Your task to perform on an android device: Clear all items from cart on amazon. Search for "razer deathadder" on amazon, select the first entry, add it to the cart, then select checkout. Image 0: 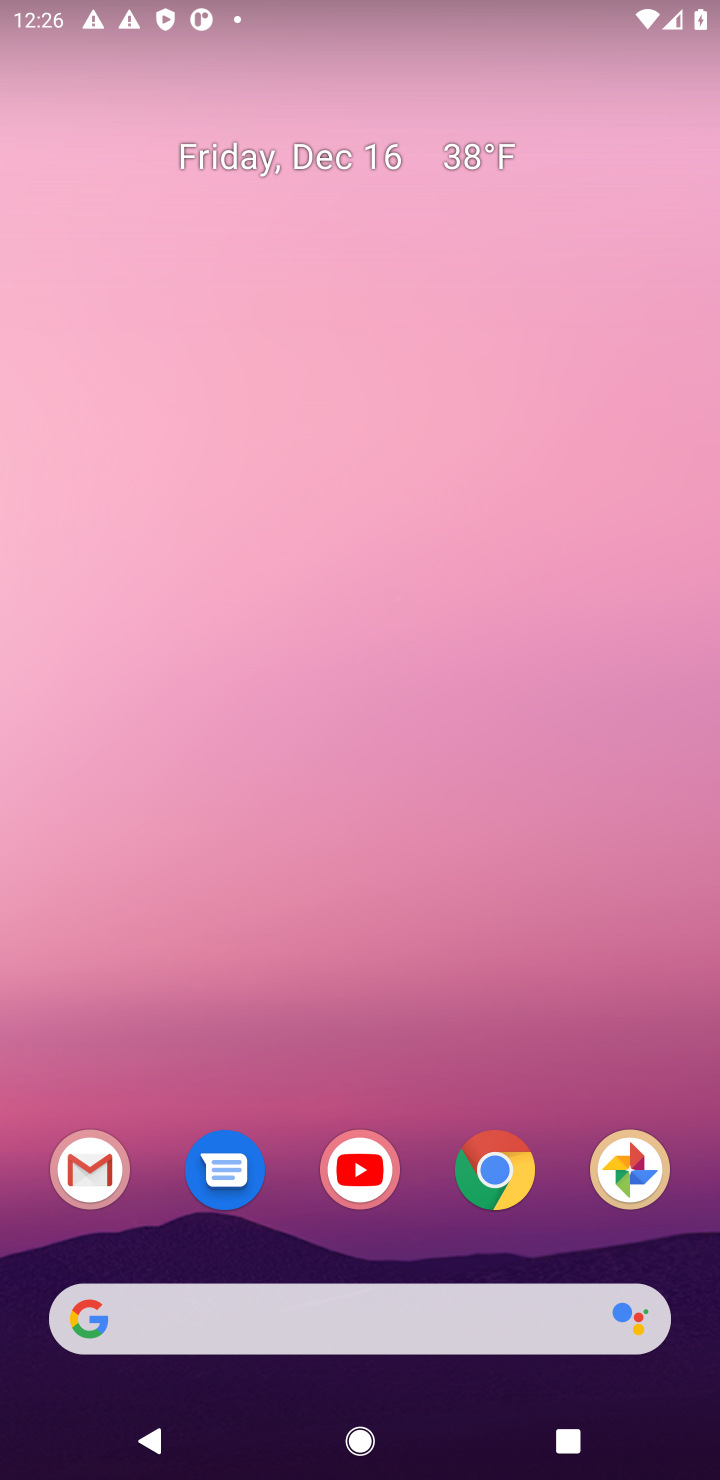
Step 0: click (485, 1184)
Your task to perform on an android device: Clear all items from cart on amazon. Search for "razer deathadder" on amazon, select the first entry, add it to the cart, then select checkout. Image 1: 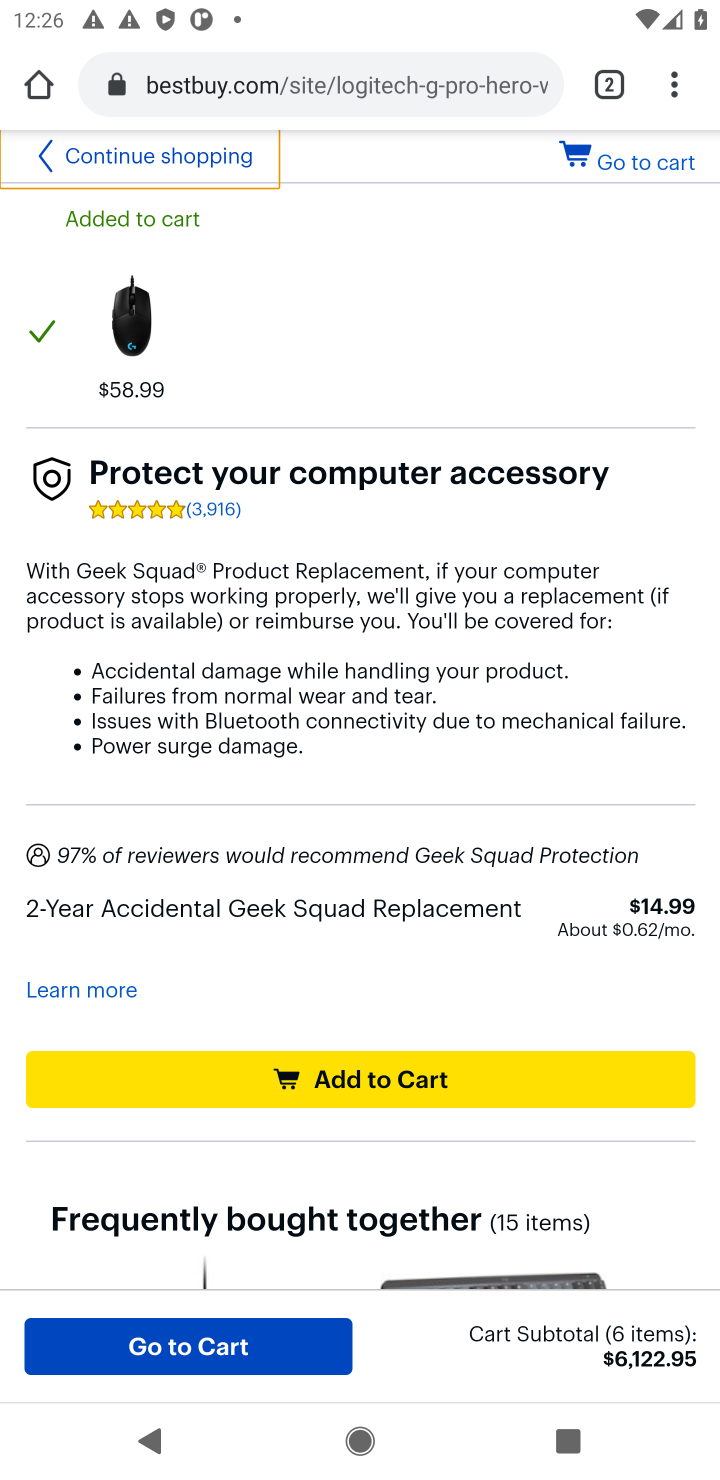
Step 1: click (289, 82)
Your task to perform on an android device: Clear all items from cart on amazon. Search for "razer deathadder" on amazon, select the first entry, add it to the cart, then select checkout. Image 2: 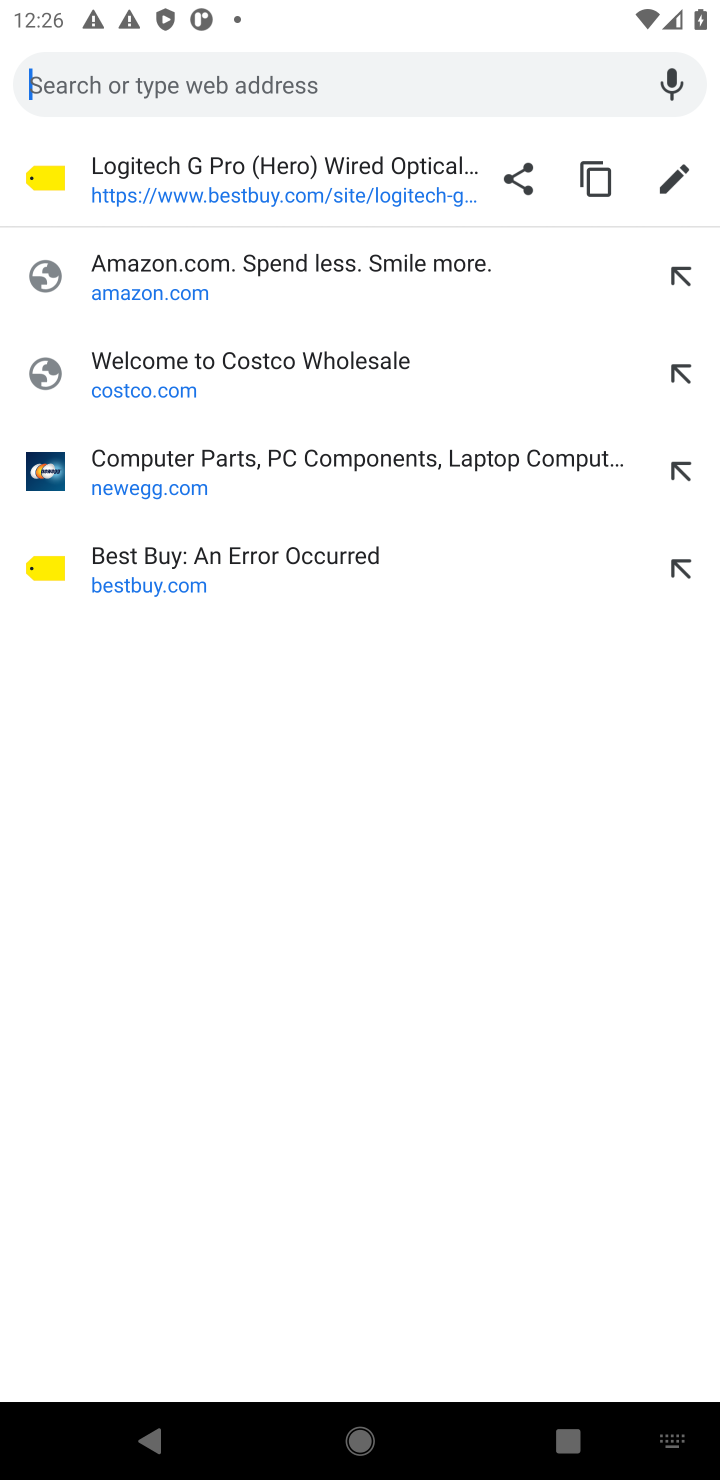
Step 2: click (137, 286)
Your task to perform on an android device: Clear all items from cart on amazon. Search for "razer deathadder" on amazon, select the first entry, add it to the cart, then select checkout. Image 3: 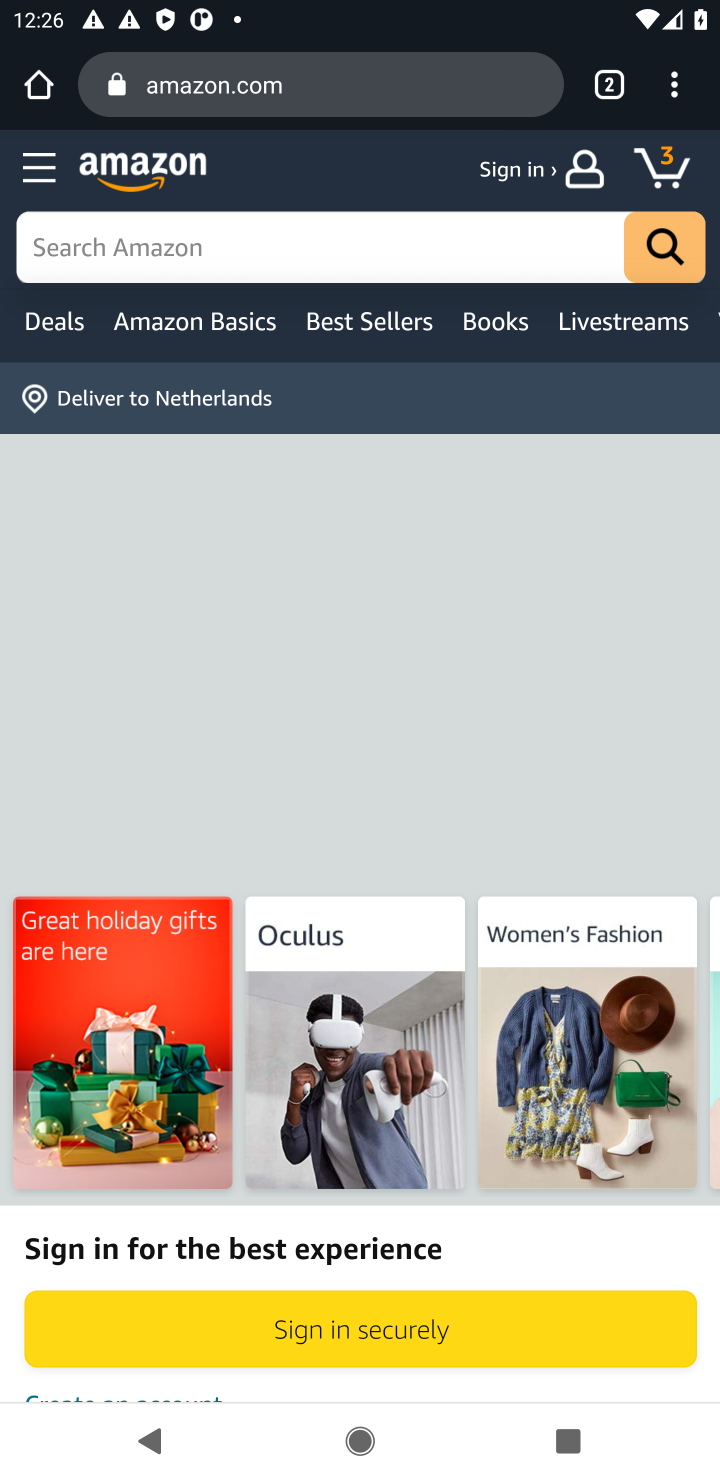
Step 3: click (666, 174)
Your task to perform on an android device: Clear all items from cart on amazon. Search for "razer deathadder" on amazon, select the first entry, add it to the cart, then select checkout. Image 4: 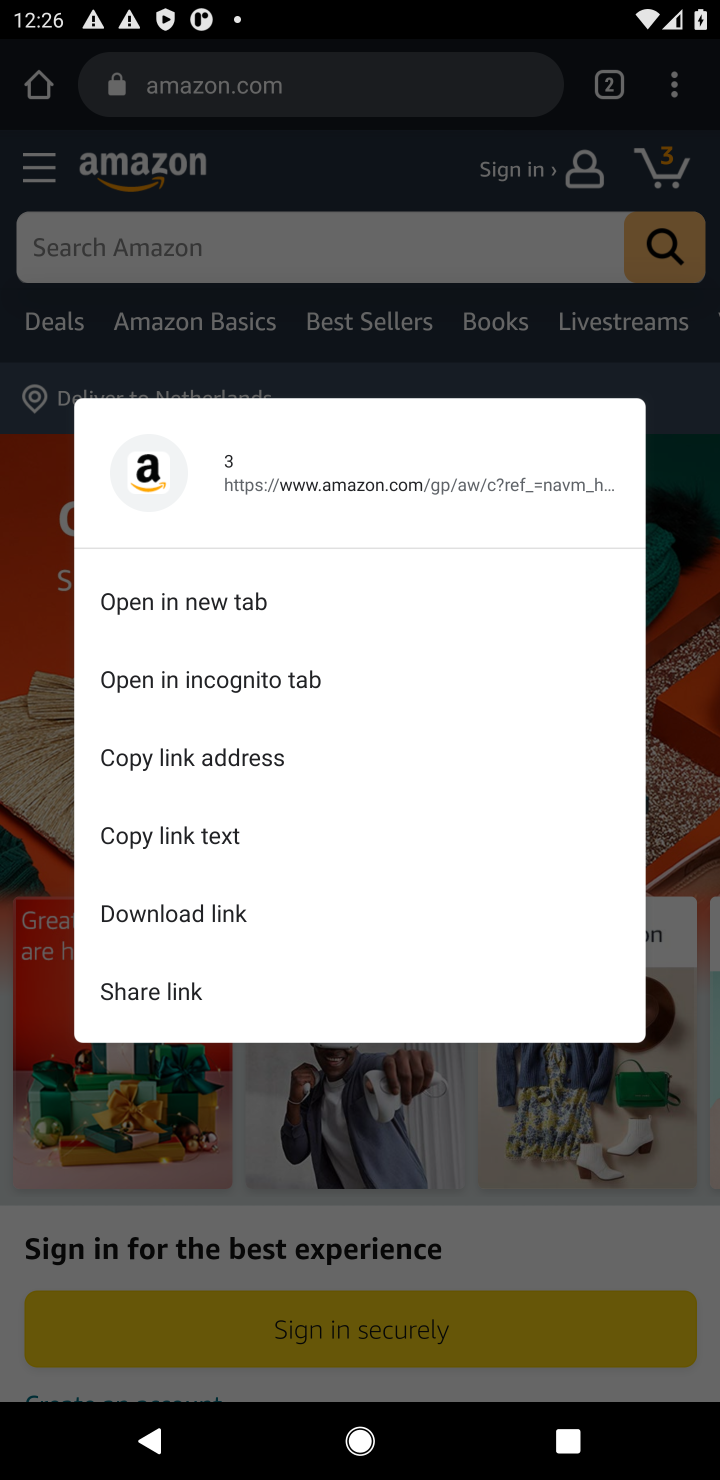
Step 4: click (678, 179)
Your task to perform on an android device: Clear all items from cart on amazon. Search for "razer deathadder" on amazon, select the first entry, add it to the cart, then select checkout. Image 5: 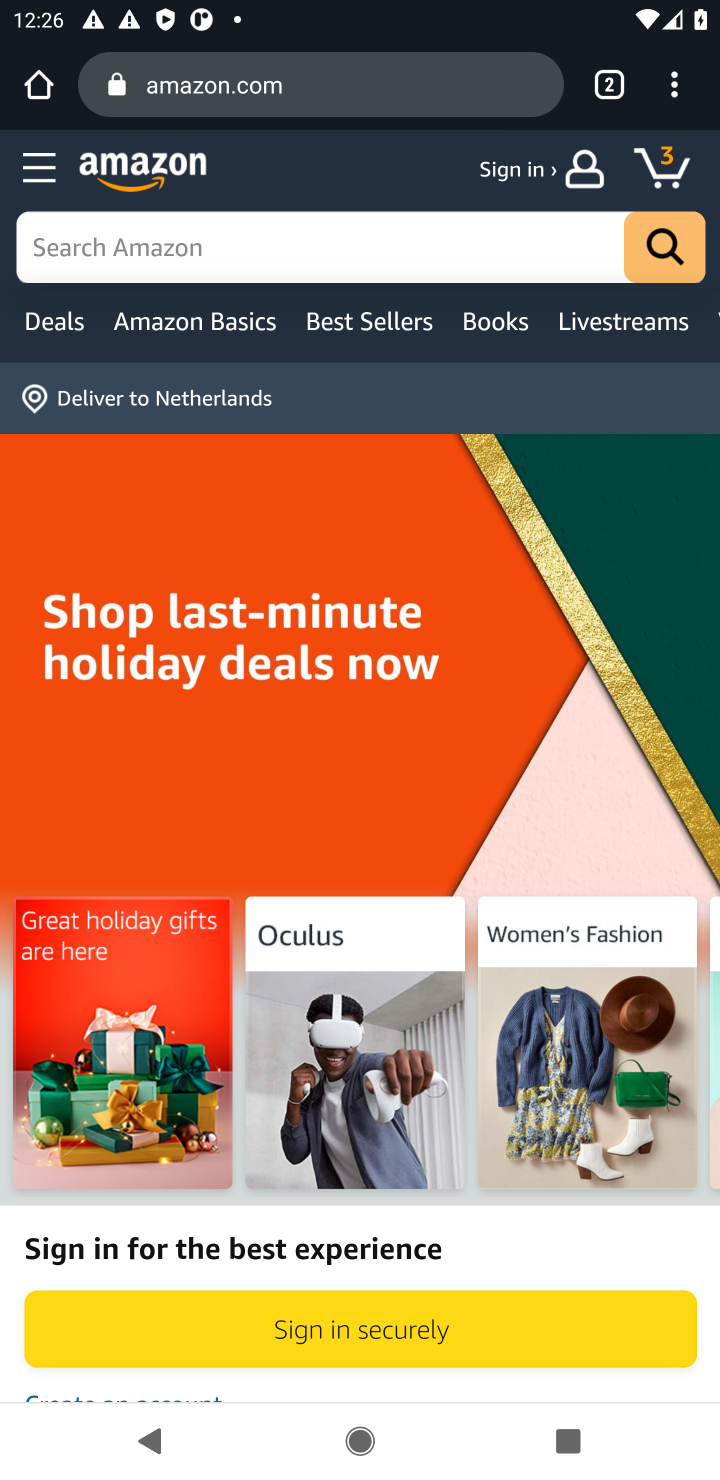
Step 5: click (667, 164)
Your task to perform on an android device: Clear all items from cart on amazon. Search for "razer deathadder" on amazon, select the first entry, add it to the cart, then select checkout. Image 6: 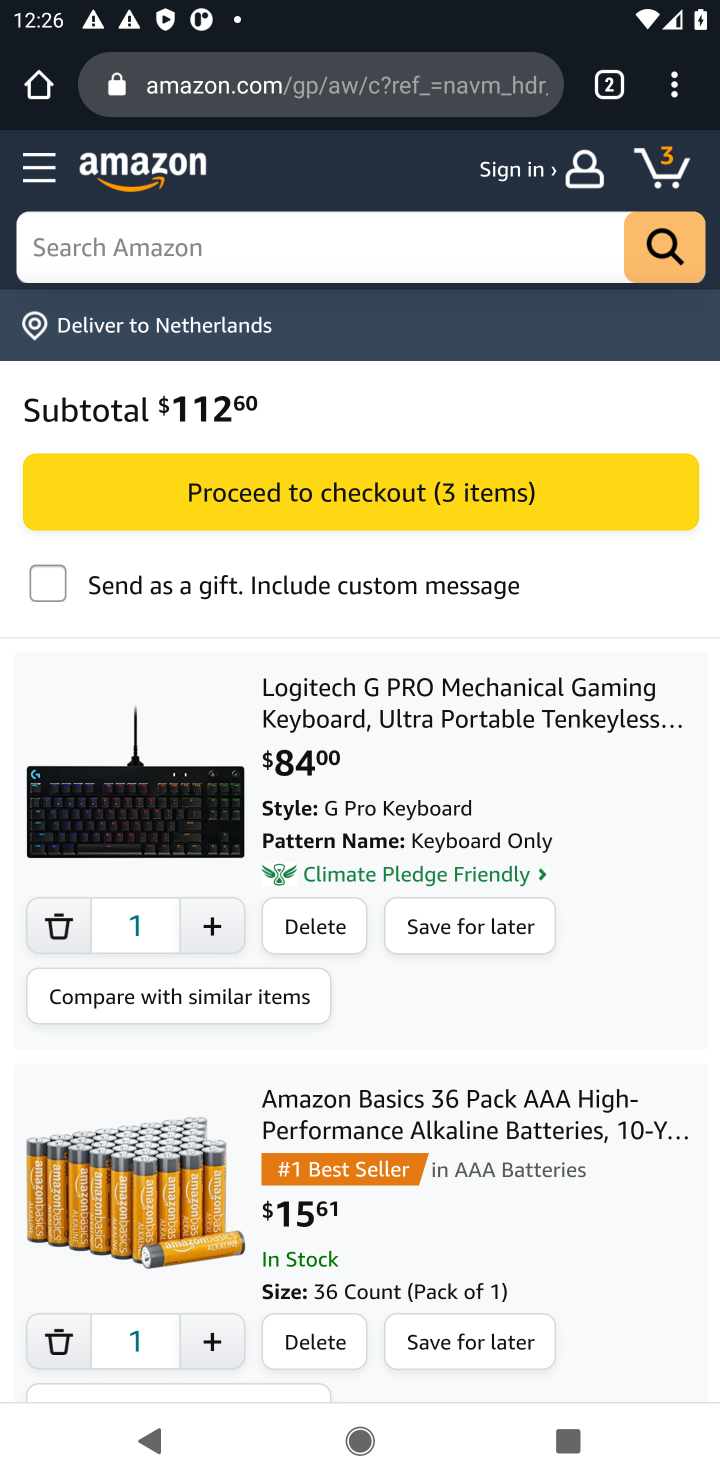
Step 6: click (298, 927)
Your task to perform on an android device: Clear all items from cart on amazon. Search for "razer deathadder" on amazon, select the first entry, add it to the cart, then select checkout. Image 7: 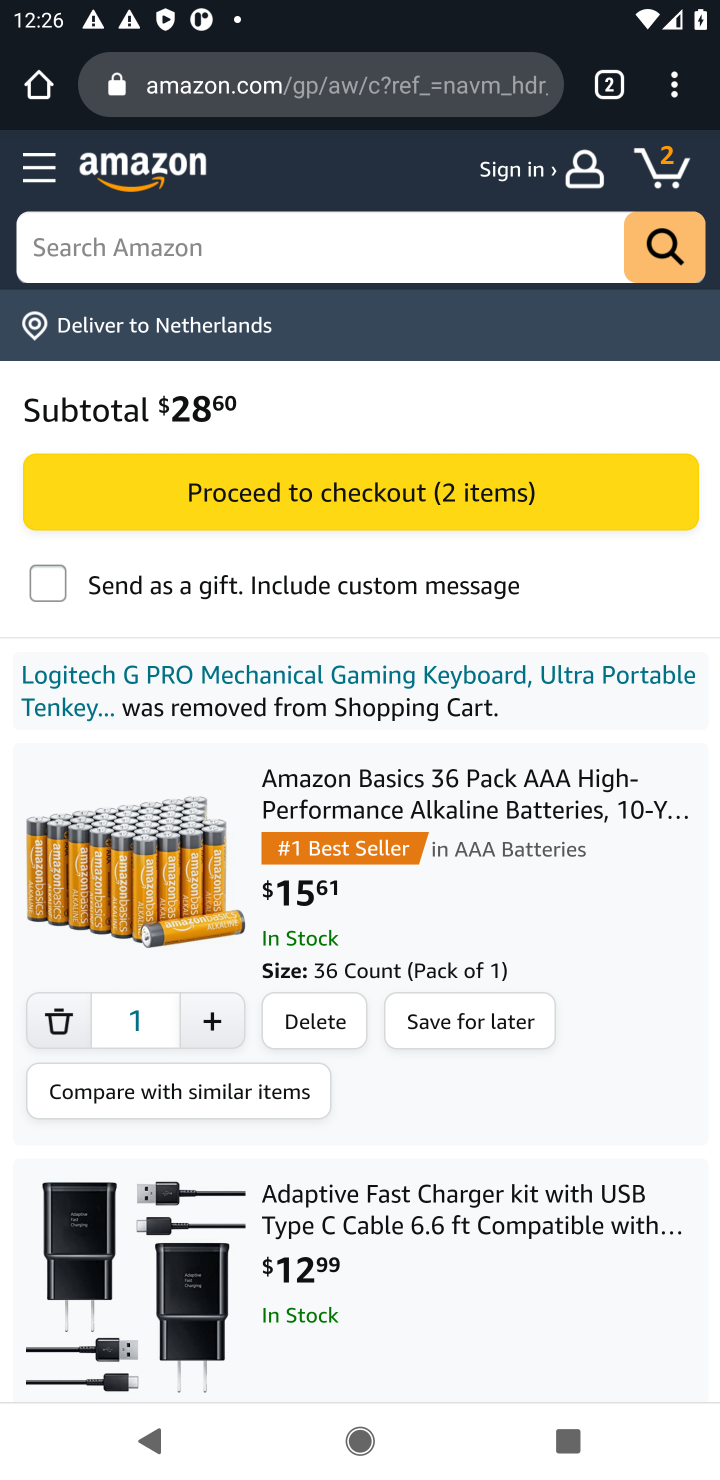
Step 7: click (298, 1017)
Your task to perform on an android device: Clear all items from cart on amazon. Search for "razer deathadder" on amazon, select the first entry, add it to the cart, then select checkout. Image 8: 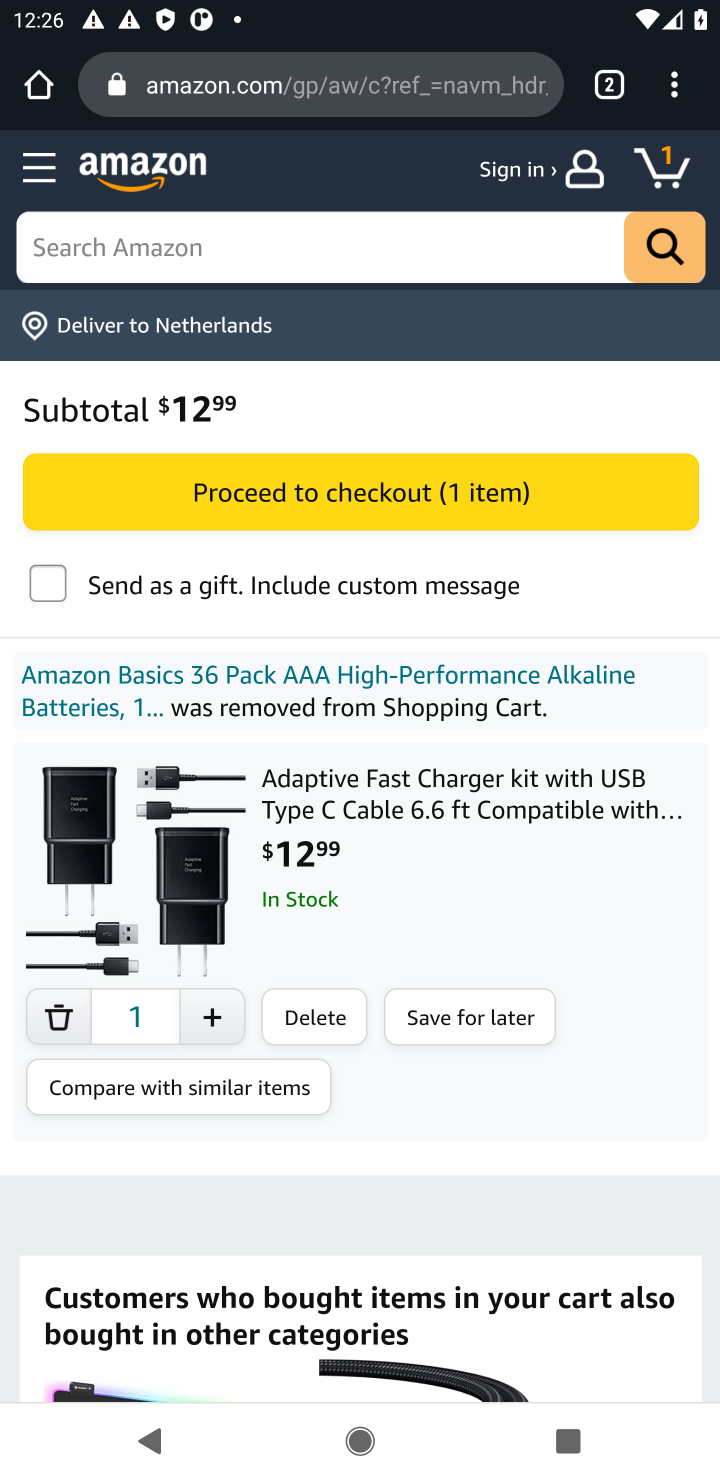
Step 8: click (298, 1017)
Your task to perform on an android device: Clear all items from cart on amazon. Search for "razer deathadder" on amazon, select the first entry, add it to the cart, then select checkout. Image 9: 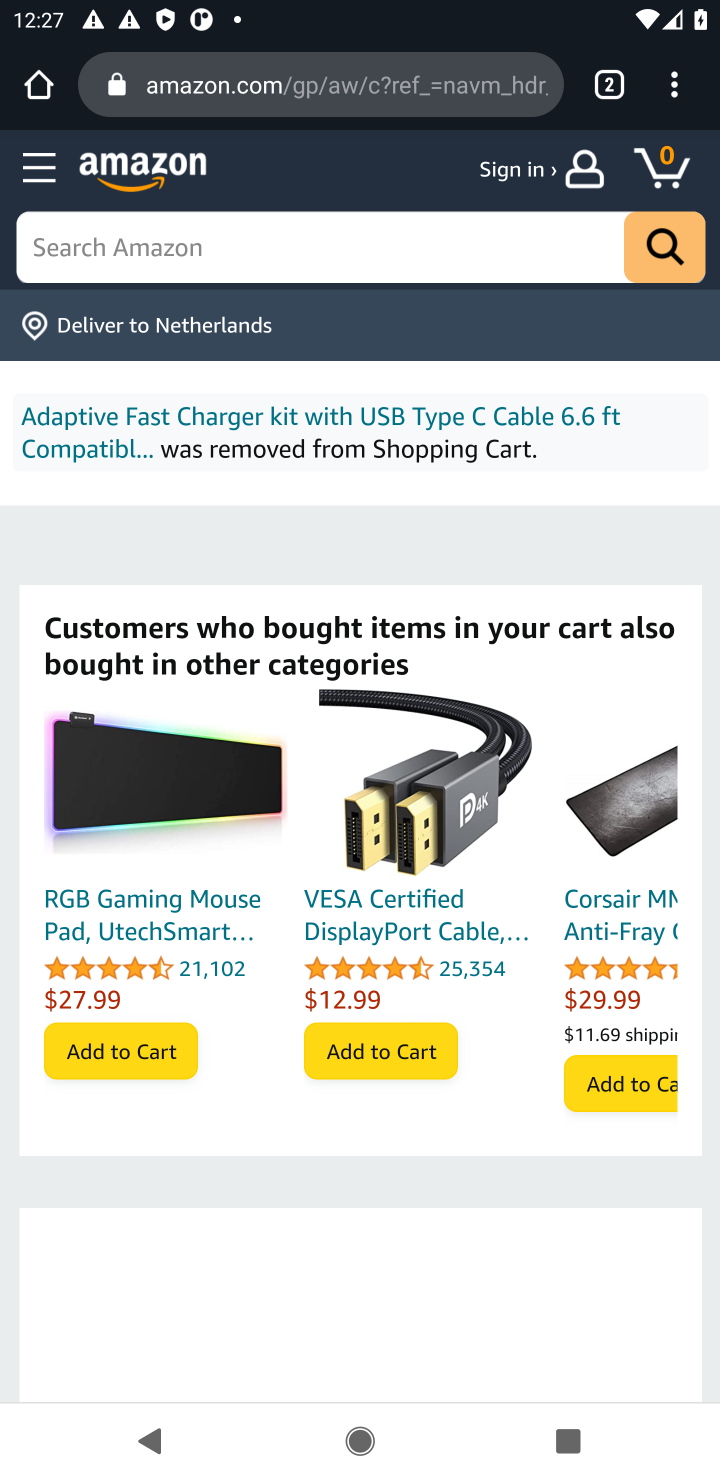
Step 9: click (95, 241)
Your task to perform on an android device: Clear all items from cart on amazon. Search for "razer deathadder" on amazon, select the first entry, add it to the cart, then select checkout. Image 10: 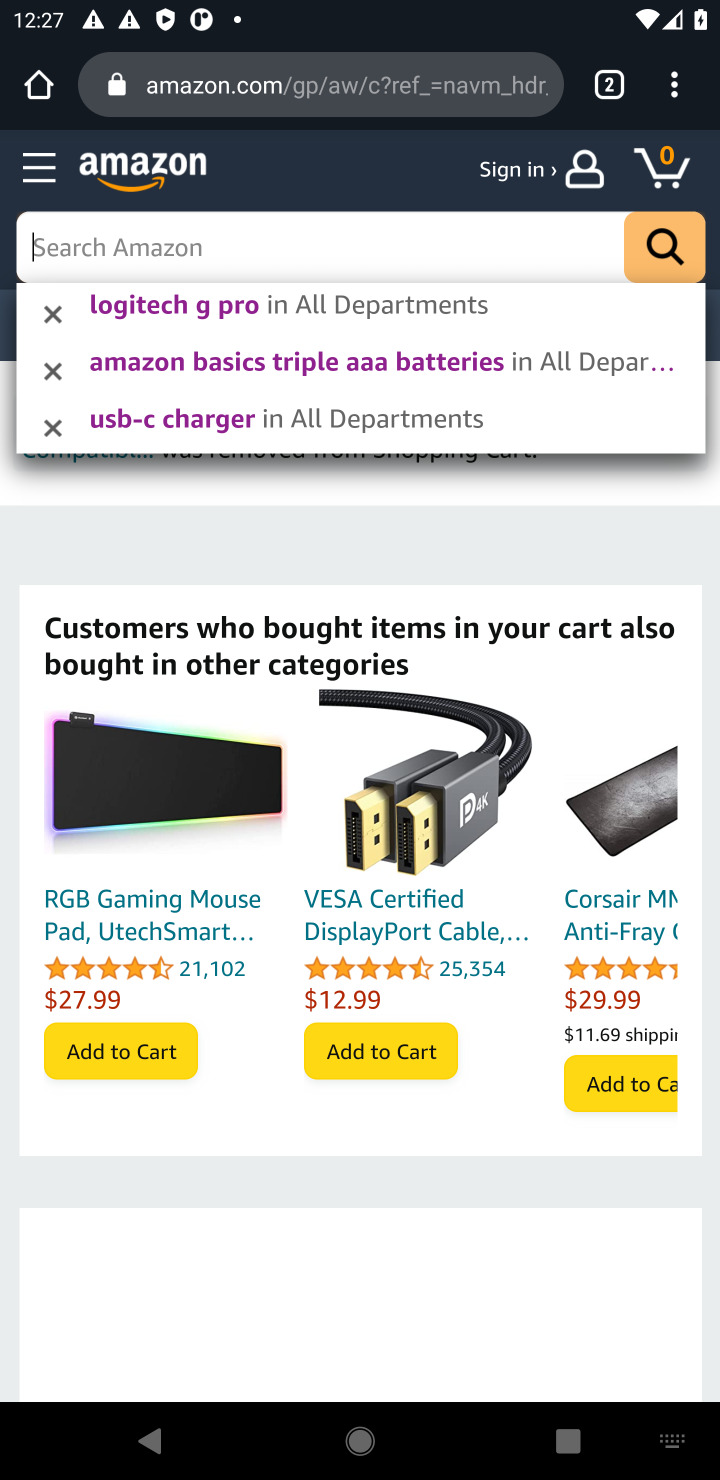
Step 10: type "razer deathadder"
Your task to perform on an android device: Clear all items from cart on amazon. Search for "razer deathadder" on amazon, select the first entry, add it to the cart, then select checkout. Image 11: 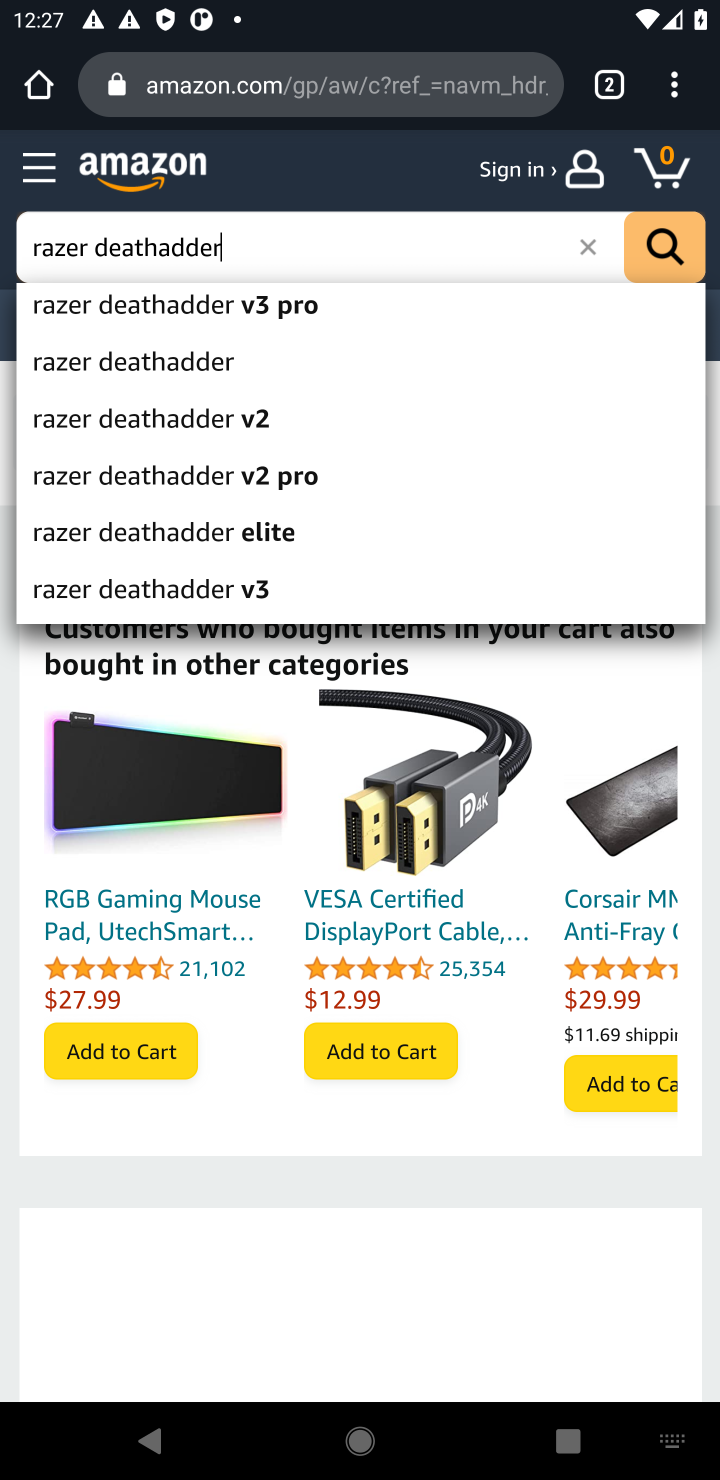
Step 11: click (171, 373)
Your task to perform on an android device: Clear all items from cart on amazon. Search for "razer deathadder" on amazon, select the first entry, add it to the cart, then select checkout. Image 12: 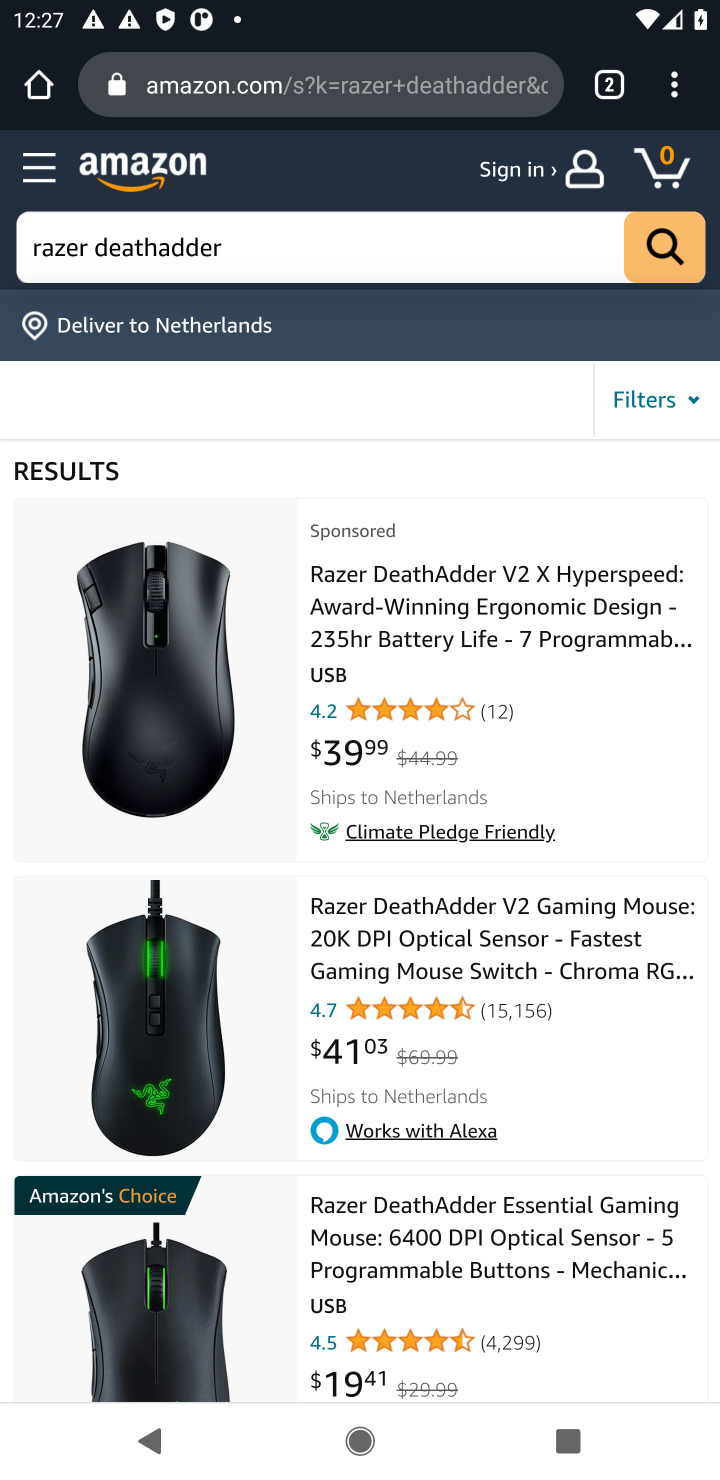
Step 12: click (405, 618)
Your task to perform on an android device: Clear all items from cart on amazon. Search for "razer deathadder" on amazon, select the first entry, add it to the cart, then select checkout. Image 13: 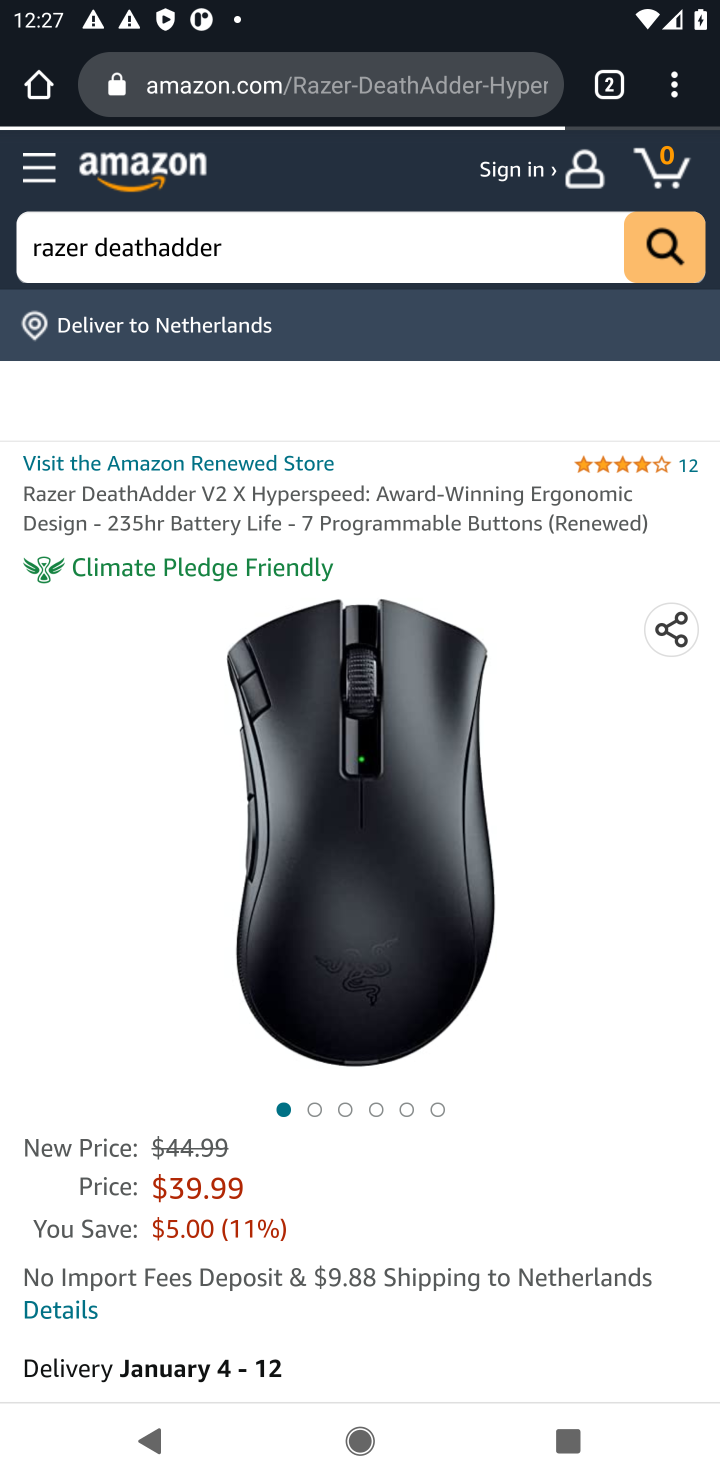
Step 13: drag from (435, 866) to (442, 405)
Your task to perform on an android device: Clear all items from cart on amazon. Search for "razer deathadder" on amazon, select the first entry, add it to the cart, then select checkout. Image 14: 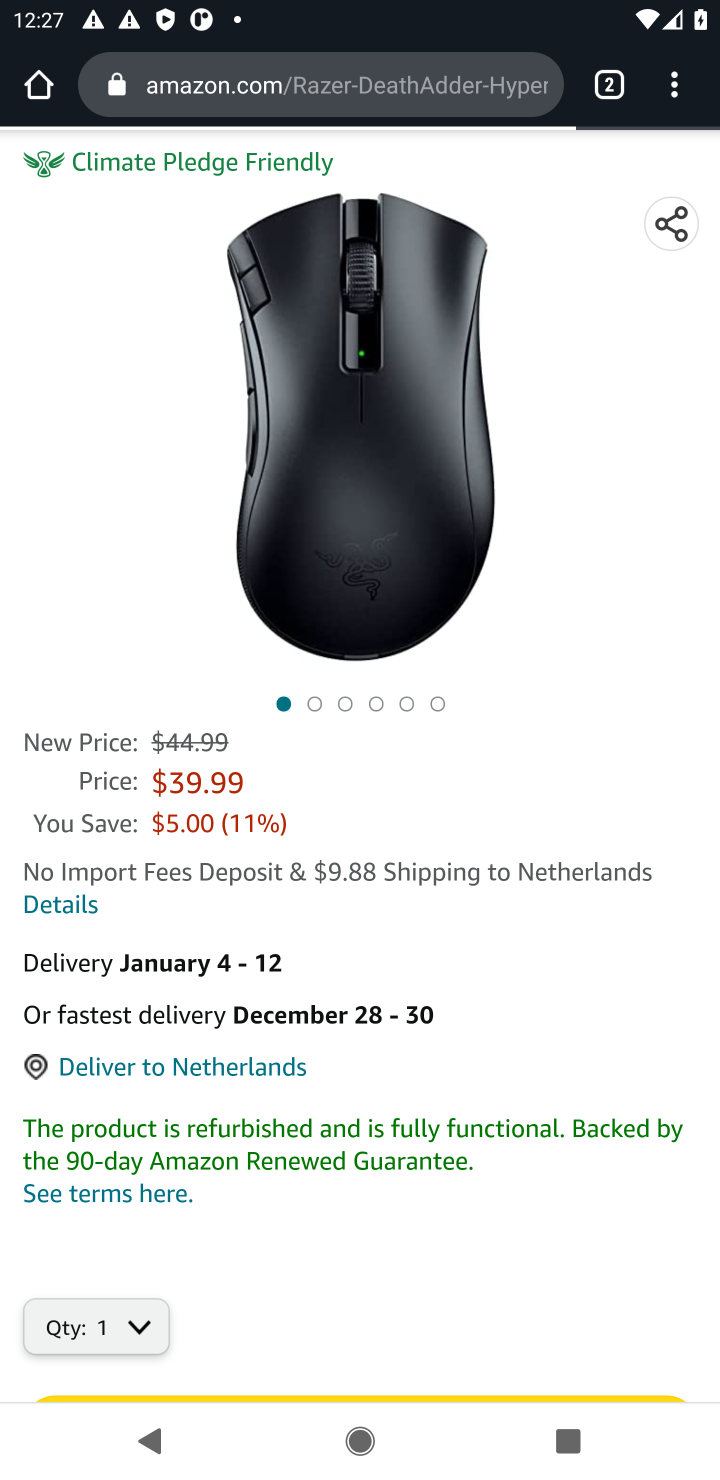
Step 14: drag from (417, 919) to (392, 358)
Your task to perform on an android device: Clear all items from cart on amazon. Search for "razer deathadder" on amazon, select the first entry, add it to the cart, then select checkout. Image 15: 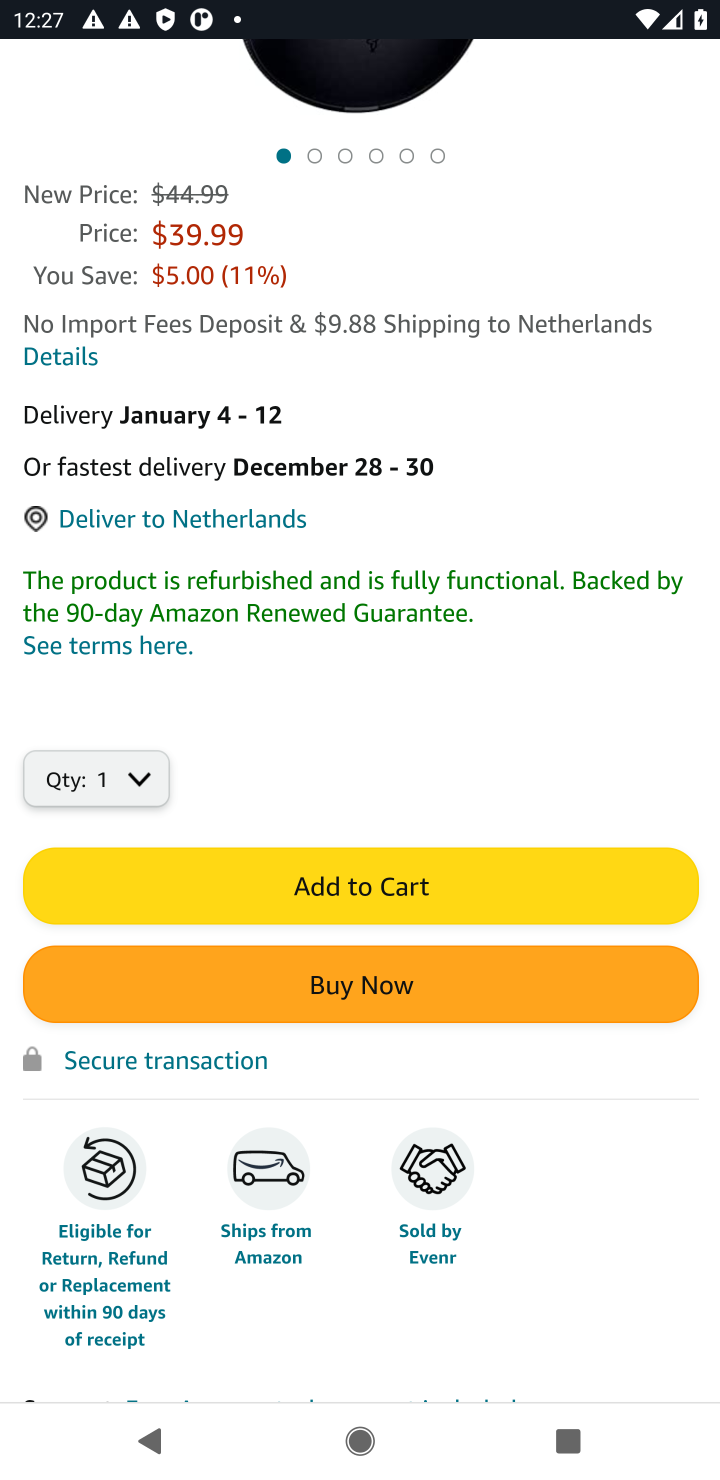
Step 15: click (287, 893)
Your task to perform on an android device: Clear all items from cart on amazon. Search for "razer deathadder" on amazon, select the first entry, add it to the cart, then select checkout. Image 16: 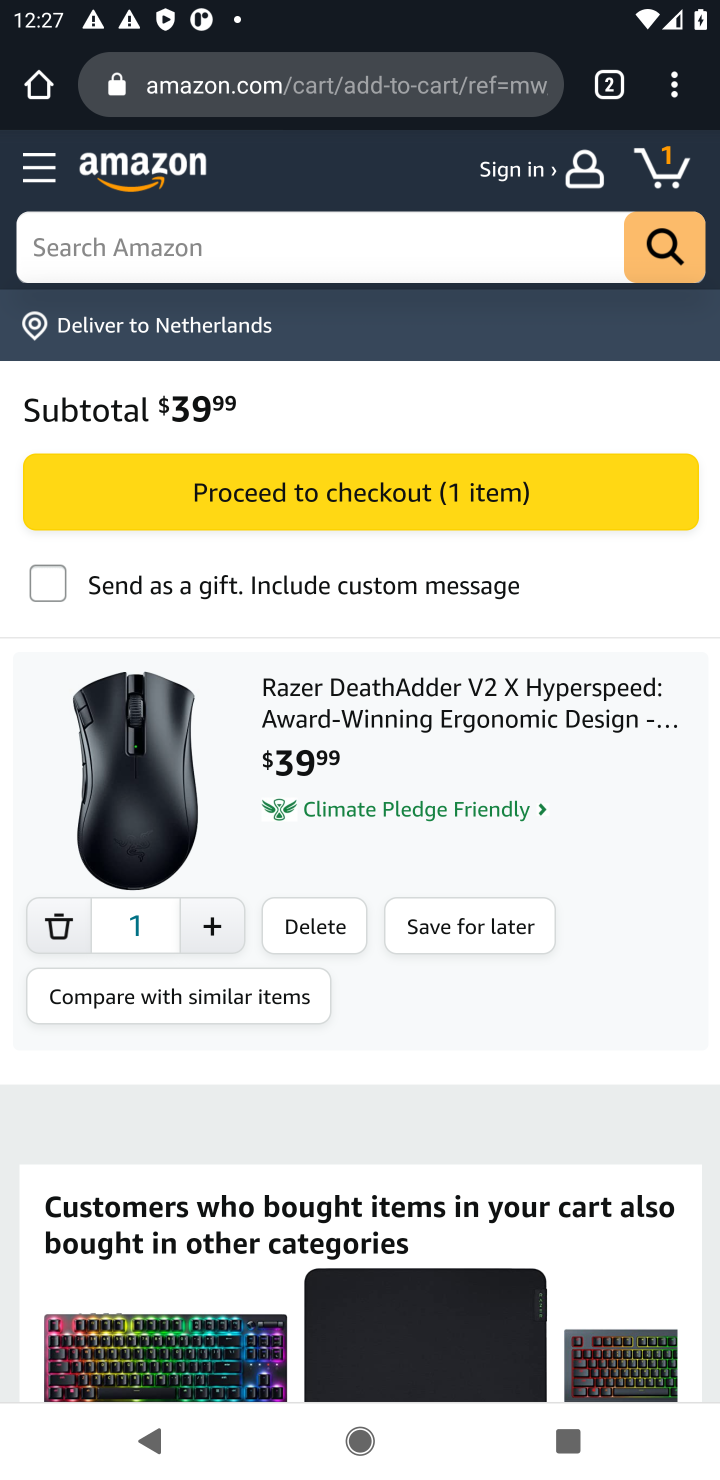
Step 16: click (272, 497)
Your task to perform on an android device: Clear all items from cart on amazon. Search for "razer deathadder" on amazon, select the first entry, add it to the cart, then select checkout. Image 17: 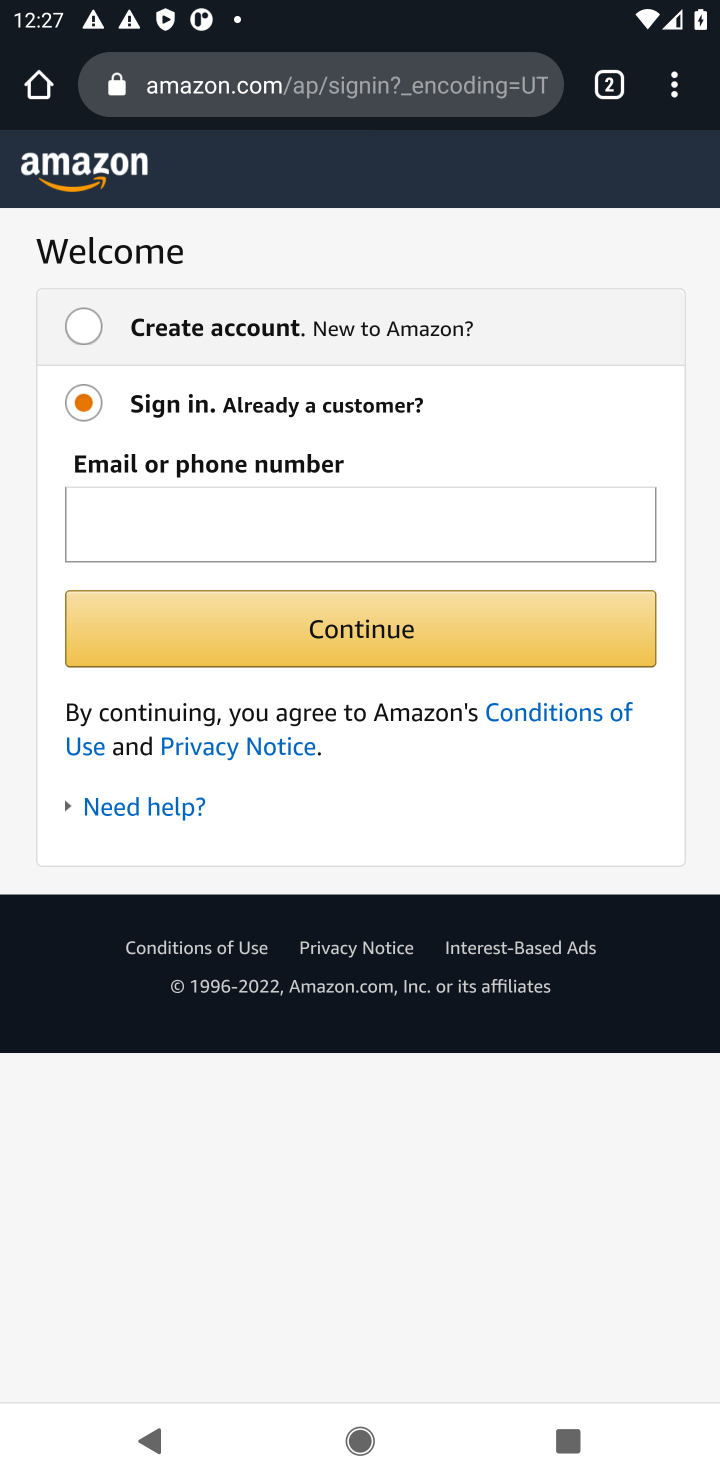
Step 17: task complete